Your task to perform on an android device: delete a single message in the gmail app Image 0: 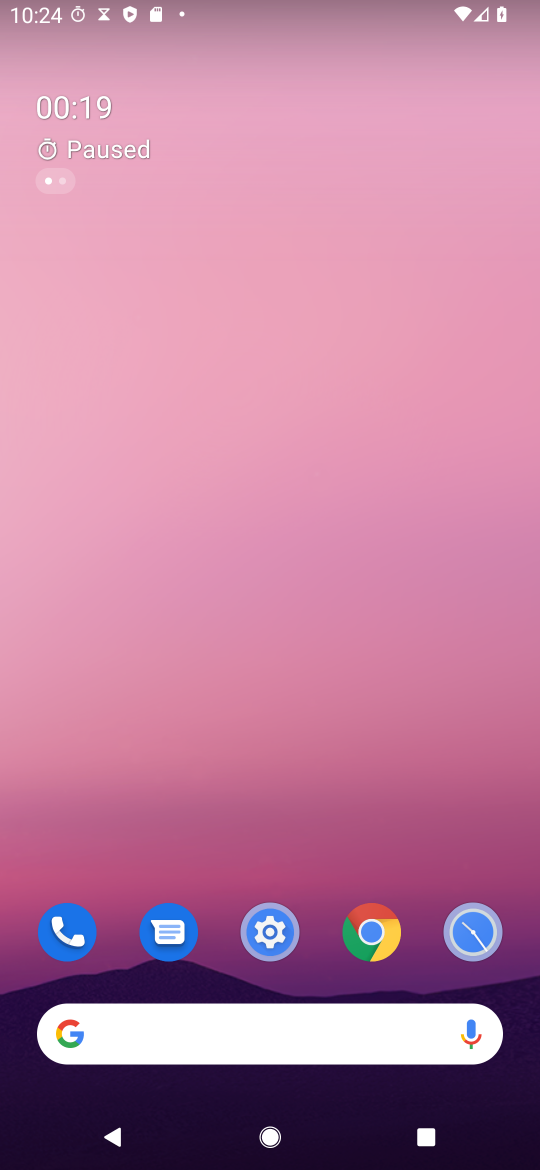
Step 0: drag from (188, 1045) to (243, 352)
Your task to perform on an android device: delete a single message in the gmail app Image 1: 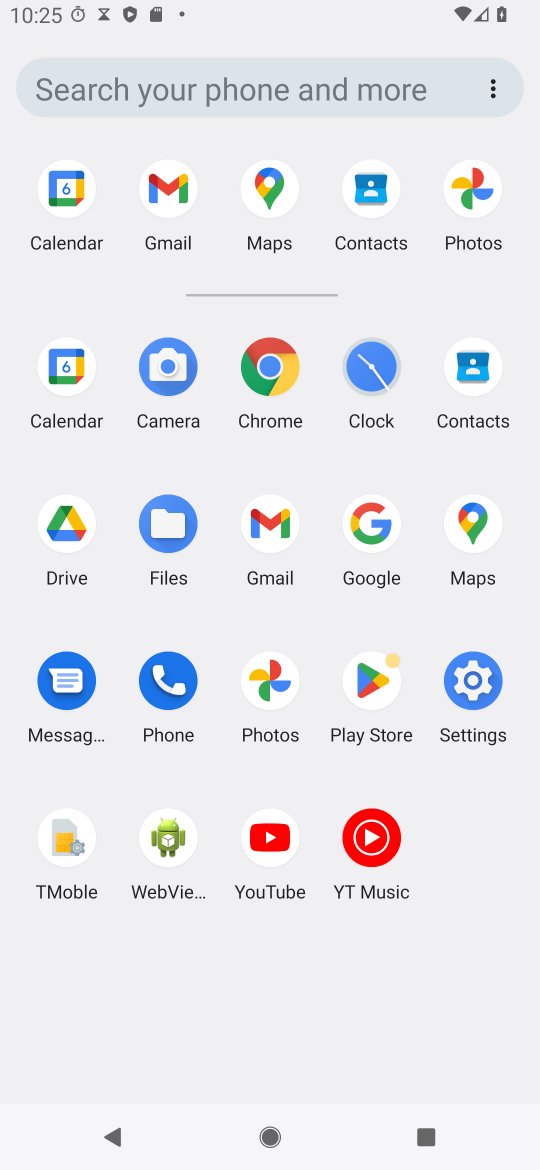
Step 1: click (270, 526)
Your task to perform on an android device: delete a single message in the gmail app Image 2: 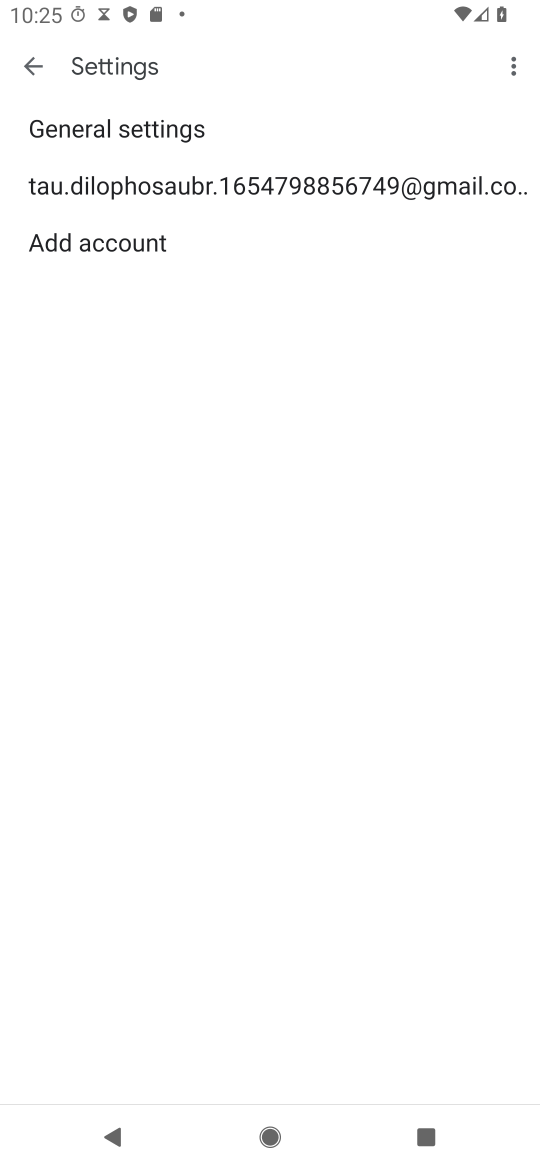
Step 2: press back button
Your task to perform on an android device: delete a single message in the gmail app Image 3: 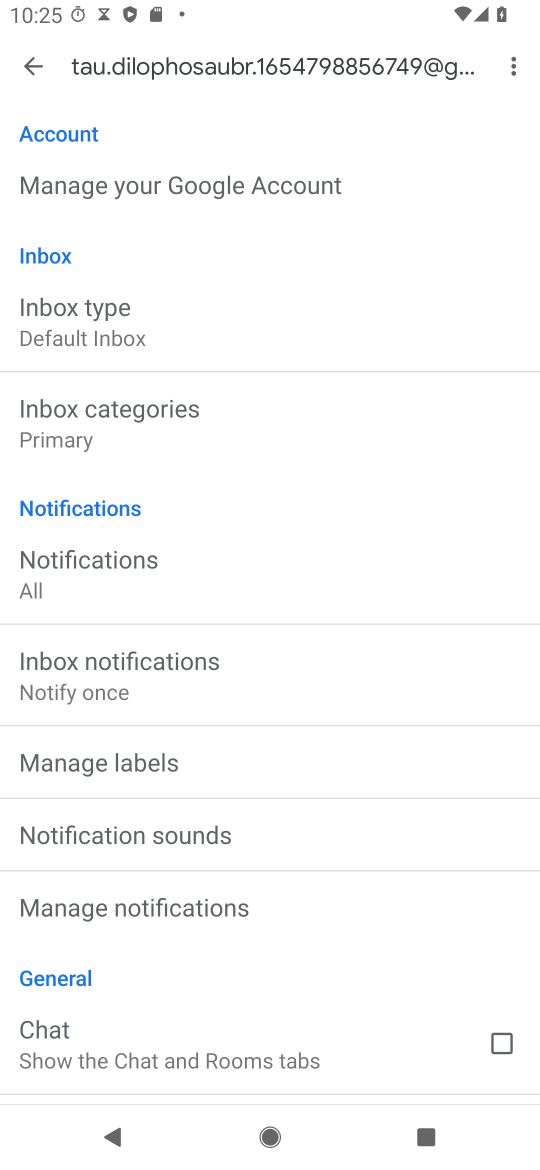
Step 3: press back button
Your task to perform on an android device: delete a single message in the gmail app Image 4: 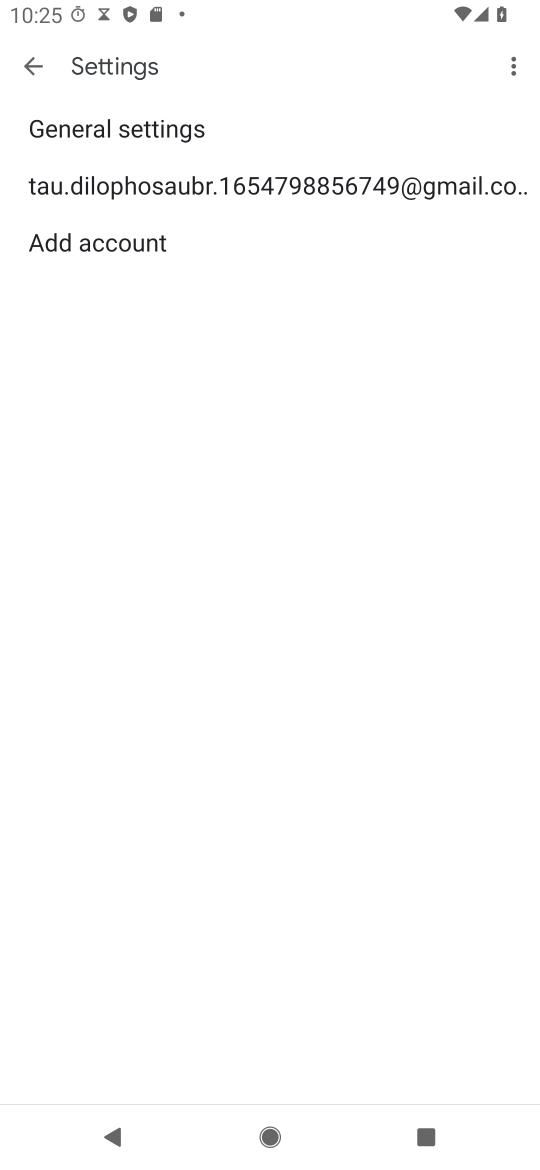
Step 4: press back button
Your task to perform on an android device: delete a single message in the gmail app Image 5: 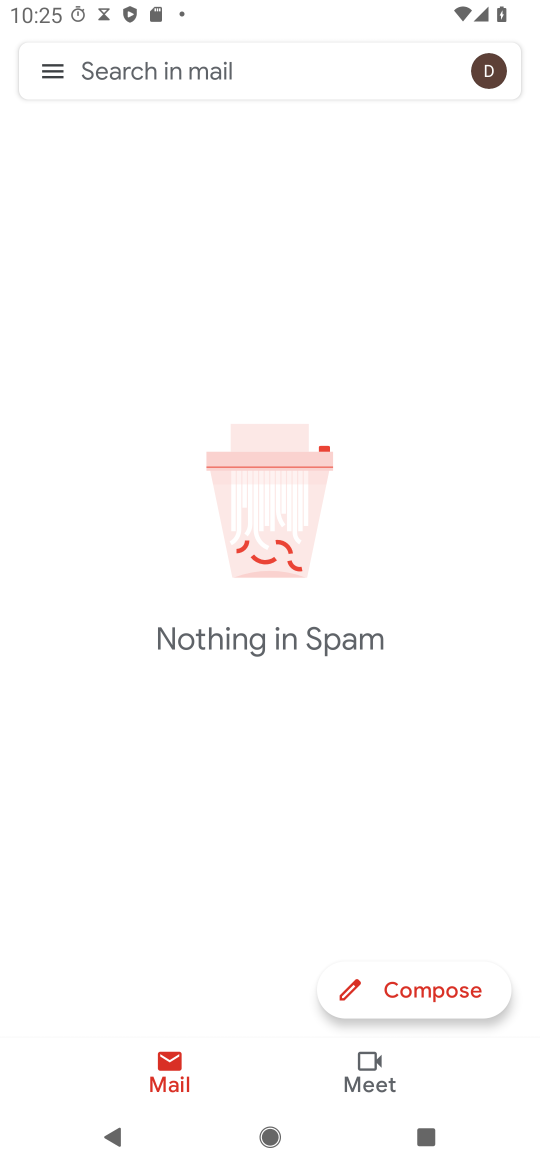
Step 5: click (42, 74)
Your task to perform on an android device: delete a single message in the gmail app Image 6: 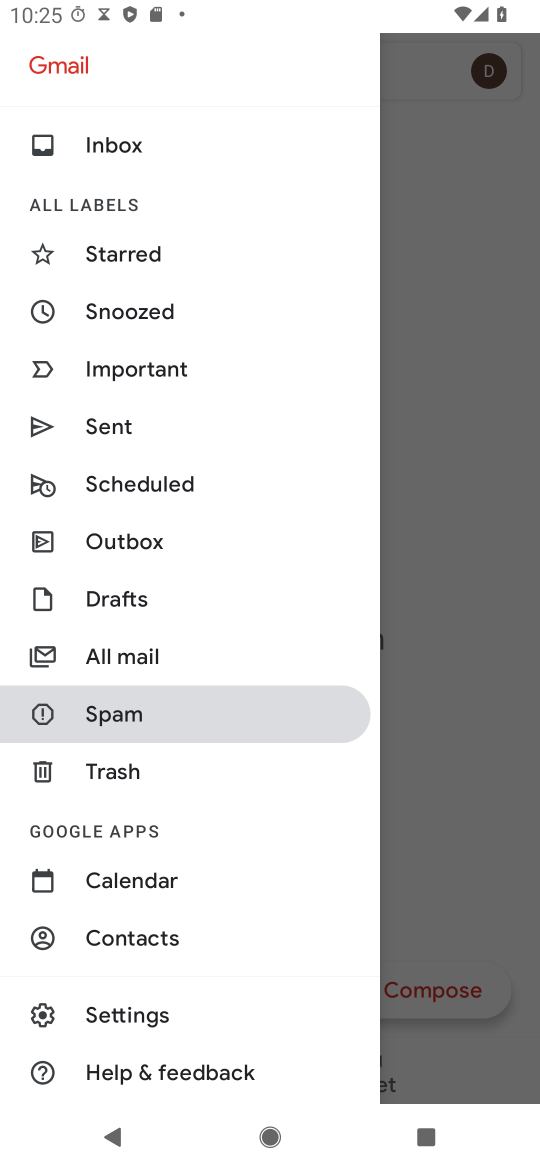
Step 6: click (138, 649)
Your task to perform on an android device: delete a single message in the gmail app Image 7: 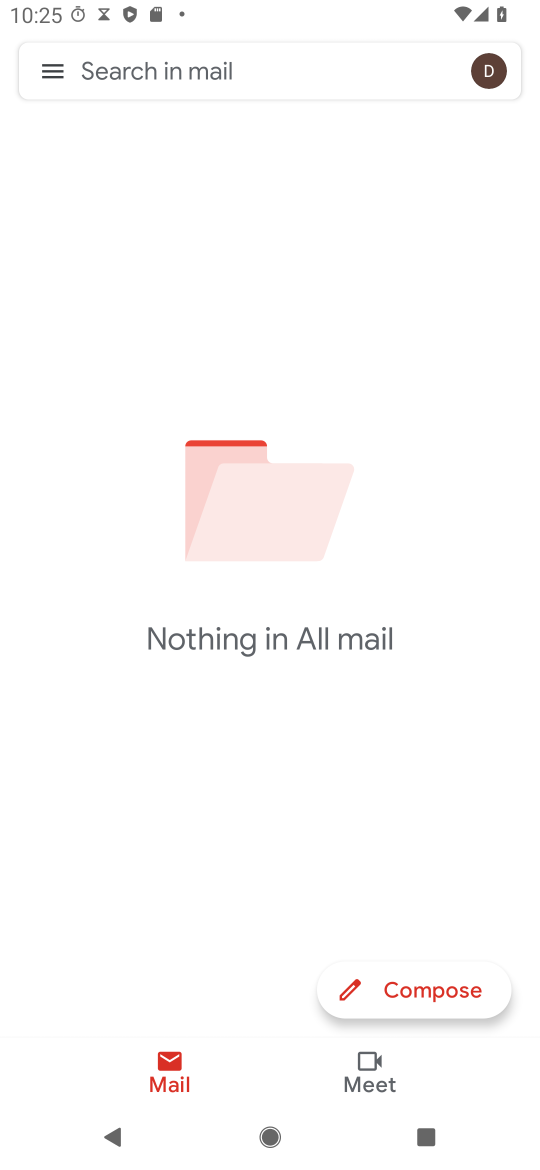
Step 7: click (48, 72)
Your task to perform on an android device: delete a single message in the gmail app Image 8: 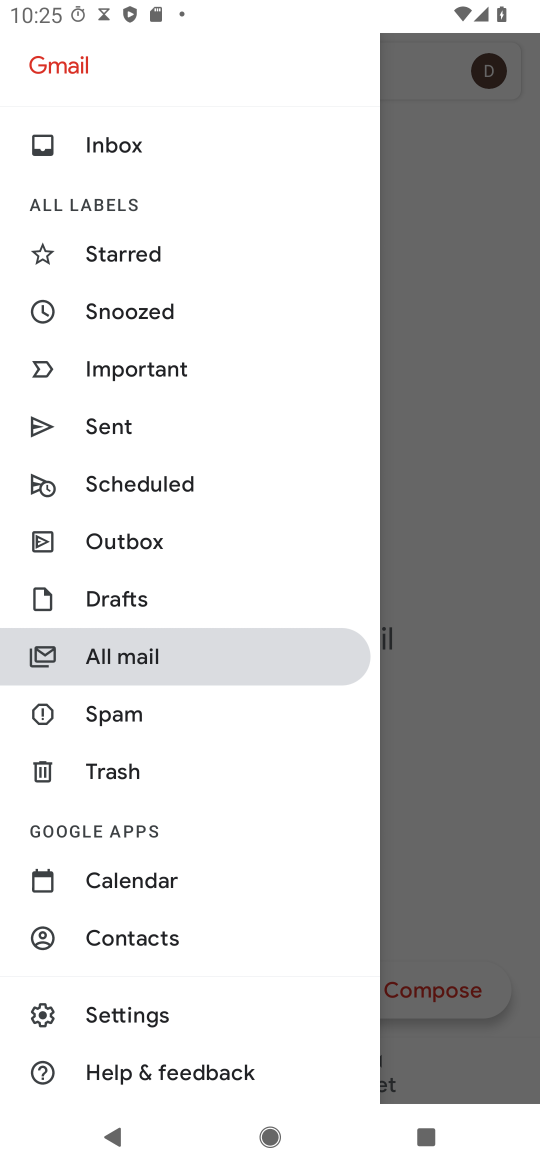
Step 8: click (129, 156)
Your task to perform on an android device: delete a single message in the gmail app Image 9: 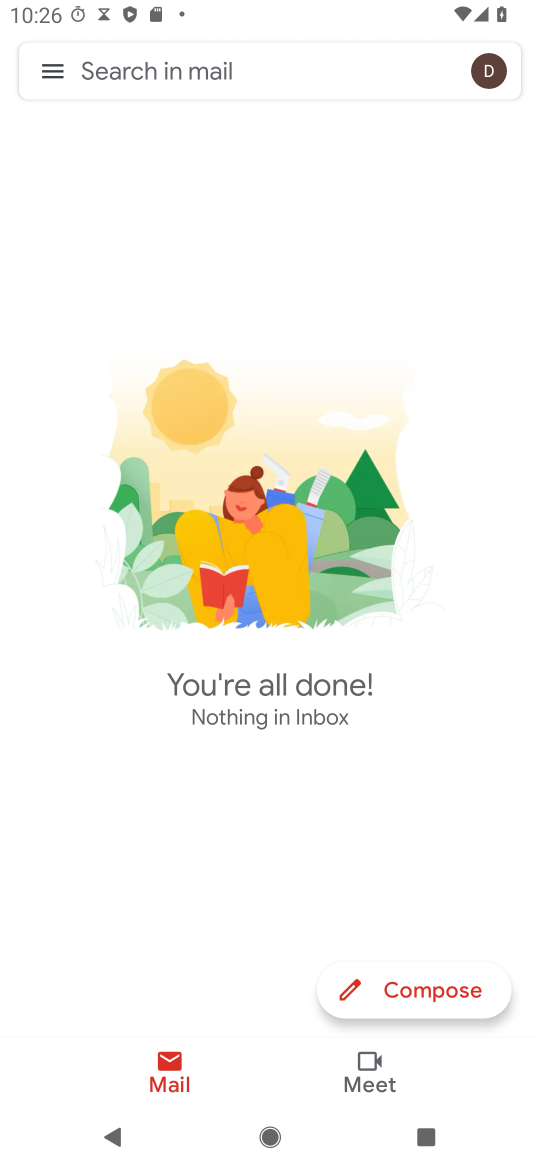
Step 9: click (47, 68)
Your task to perform on an android device: delete a single message in the gmail app Image 10: 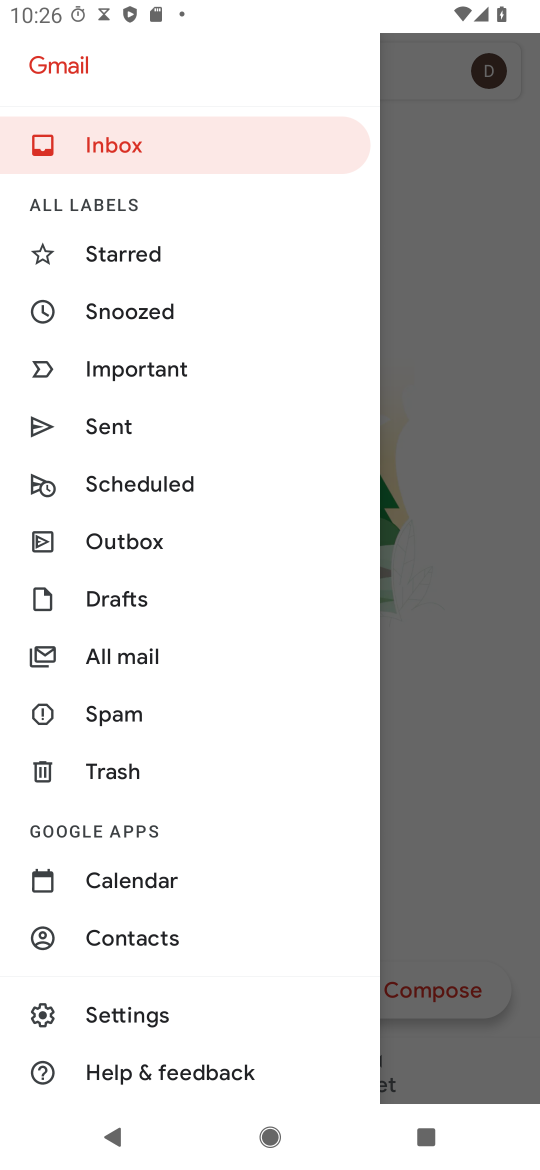
Step 10: click (132, 273)
Your task to perform on an android device: delete a single message in the gmail app Image 11: 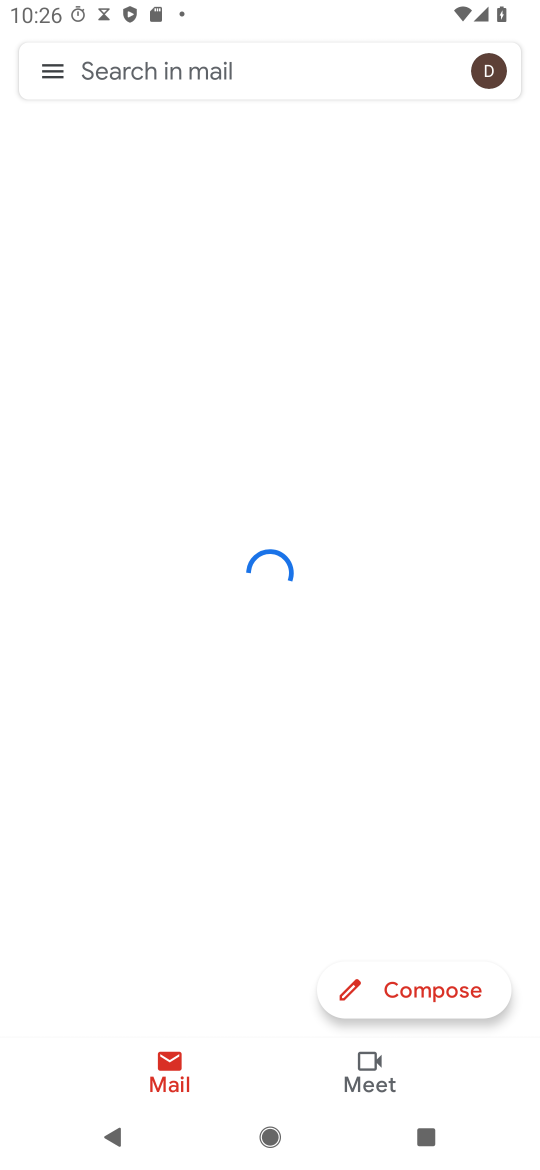
Step 11: click (52, 58)
Your task to perform on an android device: delete a single message in the gmail app Image 12: 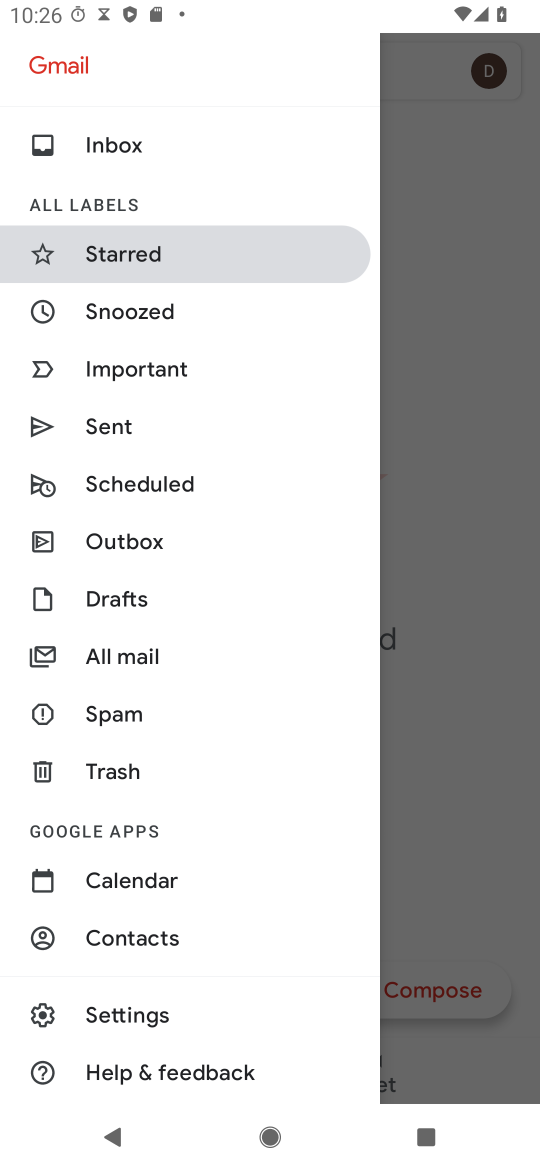
Step 12: click (148, 317)
Your task to perform on an android device: delete a single message in the gmail app Image 13: 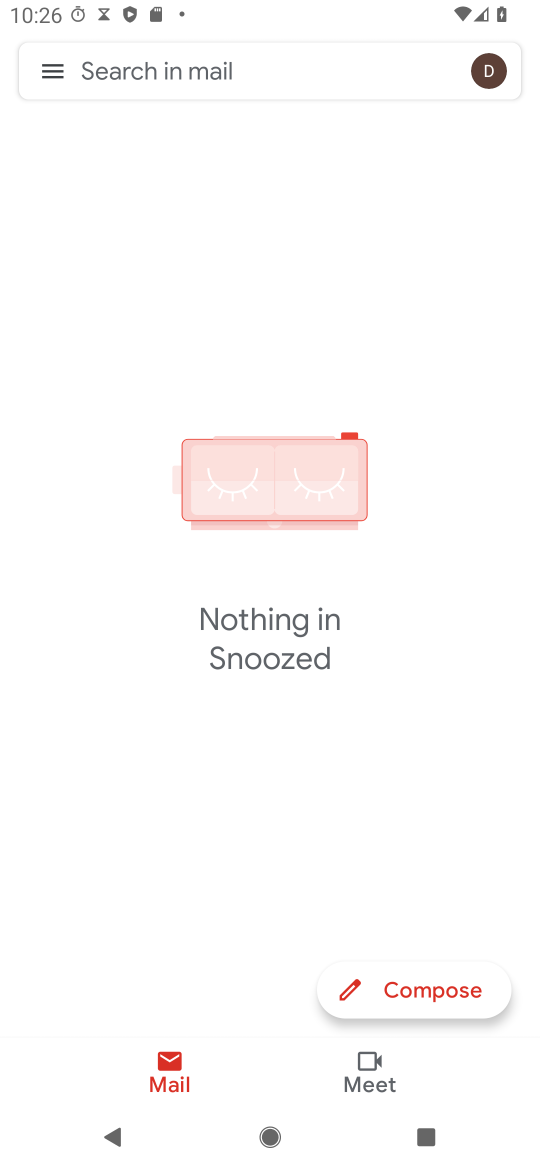
Step 13: click (49, 77)
Your task to perform on an android device: delete a single message in the gmail app Image 14: 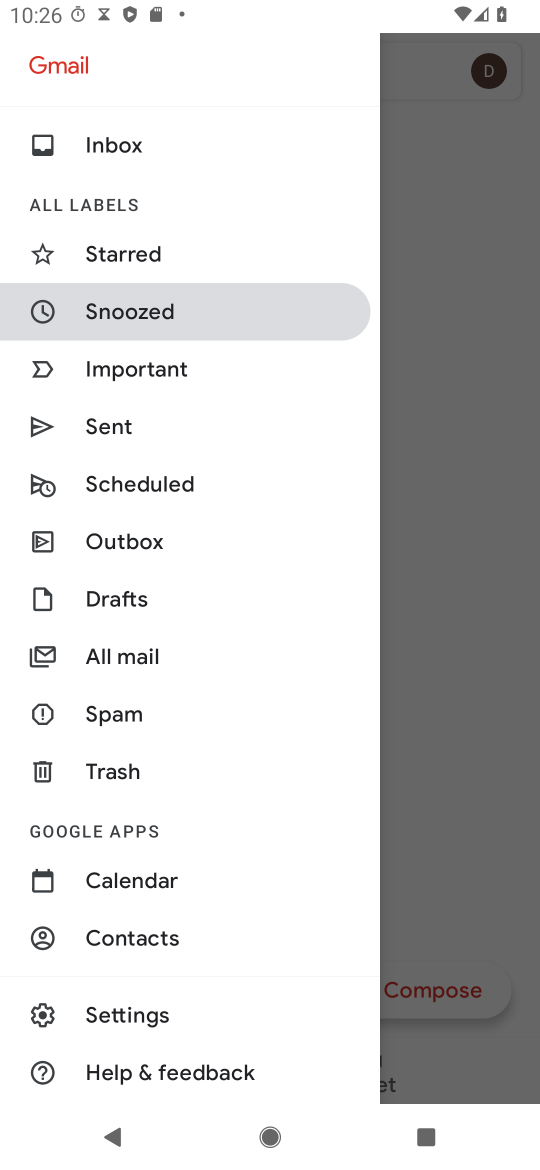
Step 14: click (148, 381)
Your task to perform on an android device: delete a single message in the gmail app Image 15: 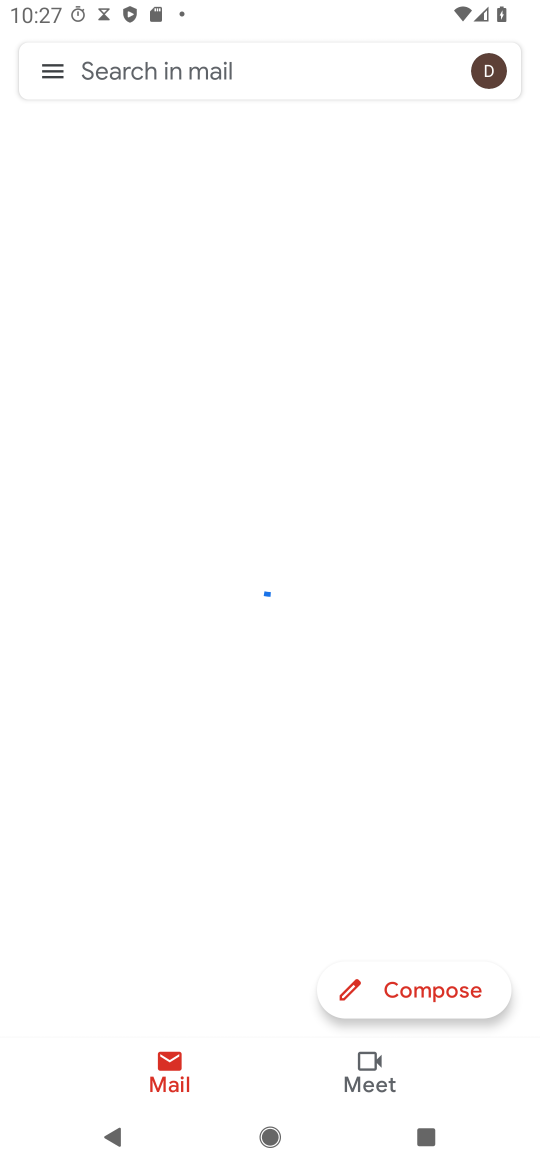
Step 15: click (41, 68)
Your task to perform on an android device: delete a single message in the gmail app Image 16: 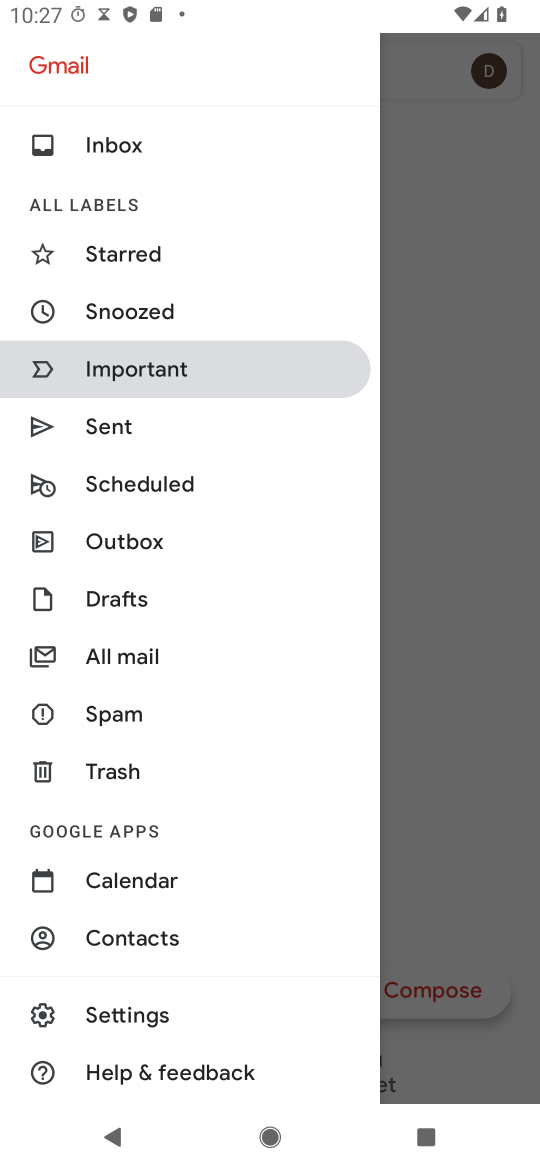
Step 16: click (112, 448)
Your task to perform on an android device: delete a single message in the gmail app Image 17: 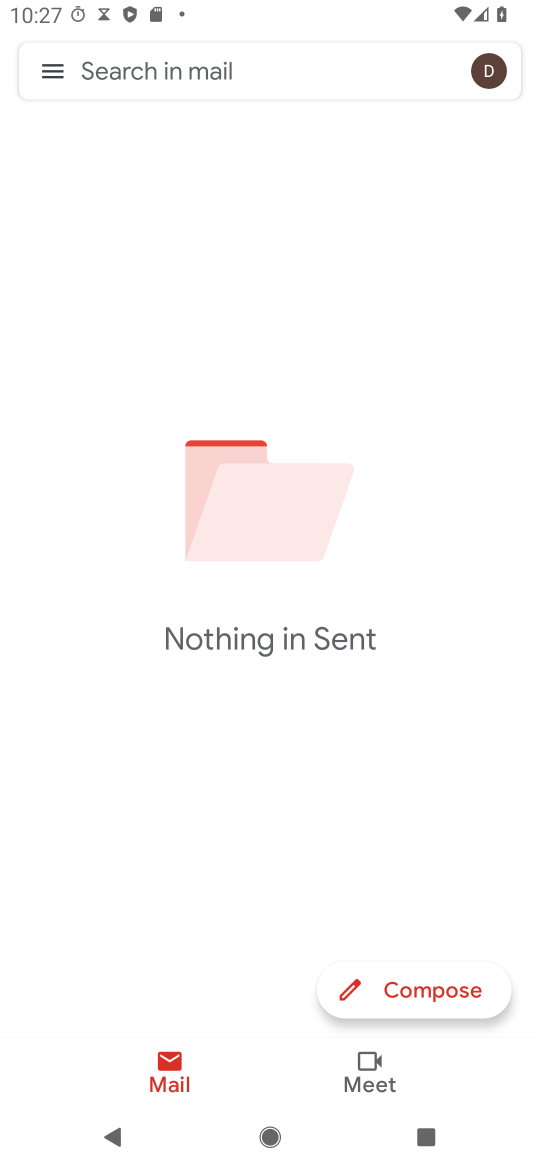
Step 17: task complete